Your task to perform on an android device: Search for seafood restaurants on Google Maps Image 0: 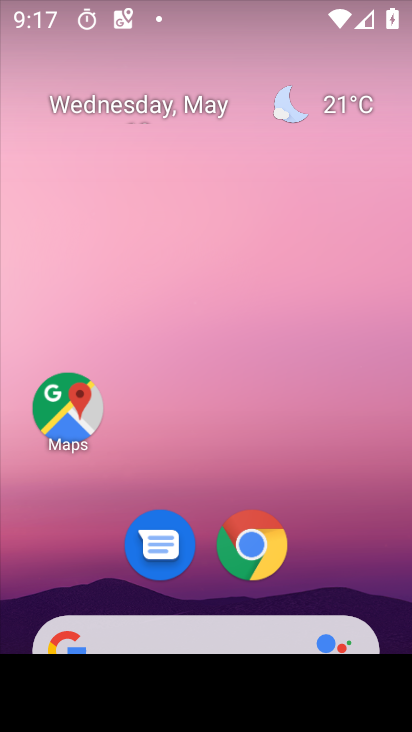
Step 0: drag from (343, 586) to (355, 56)
Your task to perform on an android device: Search for seafood restaurants on Google Maps Image 1: 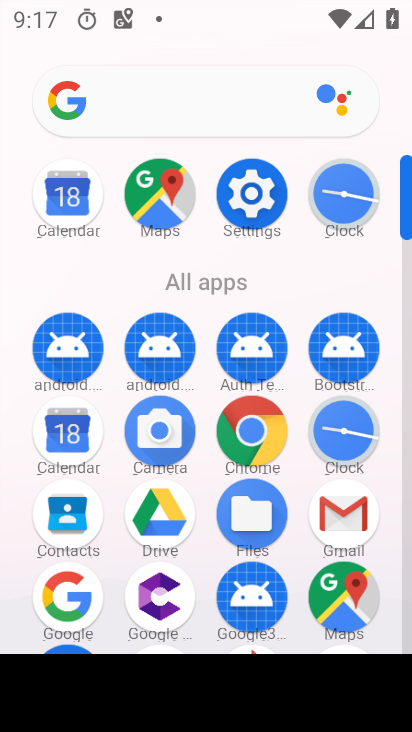
Step 1: click (347, 578)
Your task to perform on an android device: Search for seafood restaurants on Google Maps Image 2: 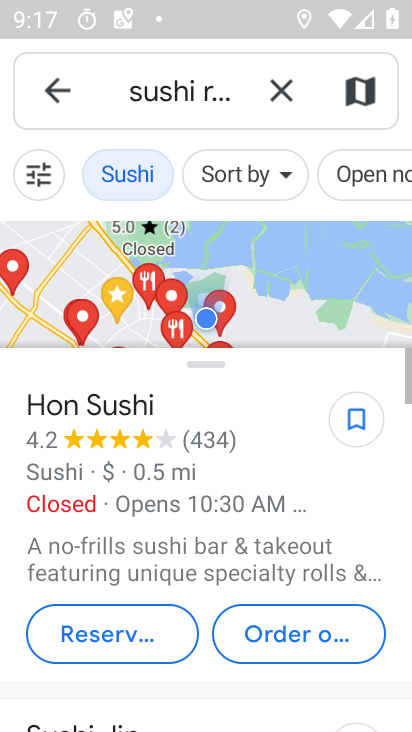
Step 2: click (273, 102)
Your task to perform on an android device: Search for seafood restaurants on Google Maps Image 3: 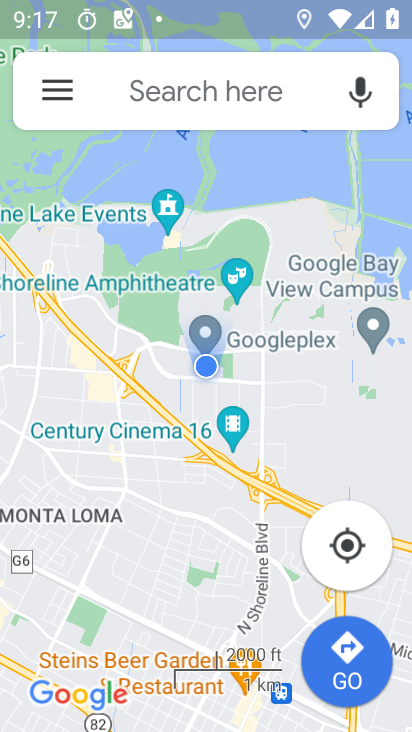
Step 3: click (216, 74)
Your task to perform on an android device: Search for seafood restaurants on Google Maps Image 4: 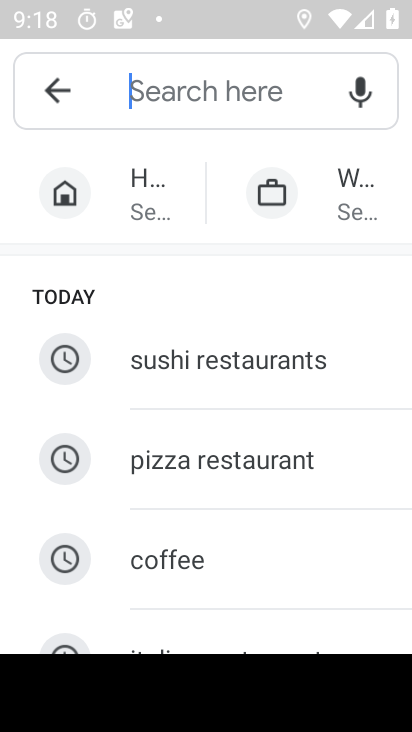
Step 4: type "seafood restaurant"
Your task to perform on an android device: Search for seafood restaurants on Google Maps Image 5: 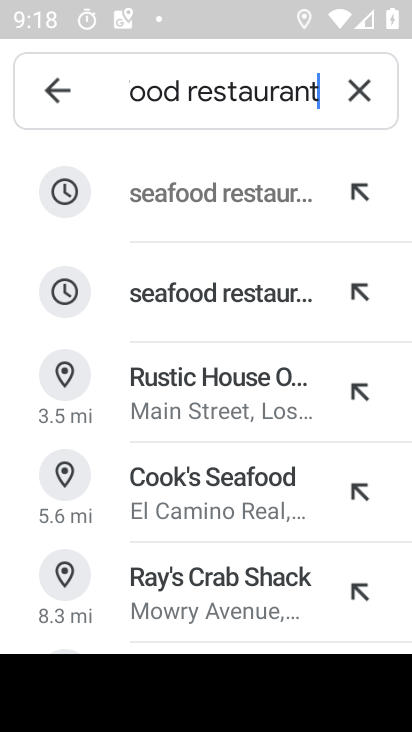
Step 5: click (160, 179)
Your task to perform on an android device: Search for seafood restaurants on Google Maps Image 6: 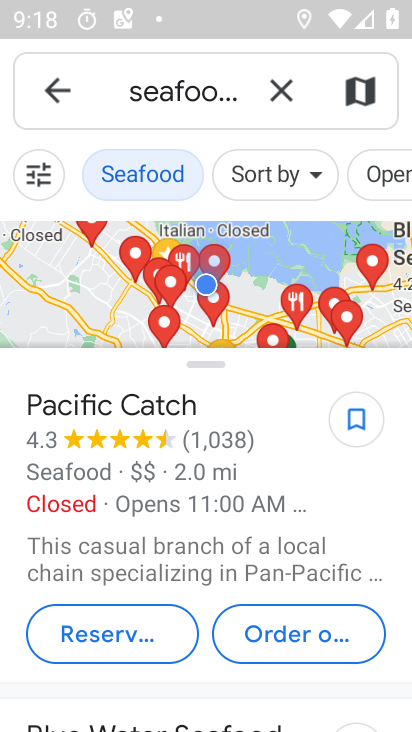
Step 6: task complete